Your task to perform on an android device: turn on showing notifications on the lock screen Image 0: 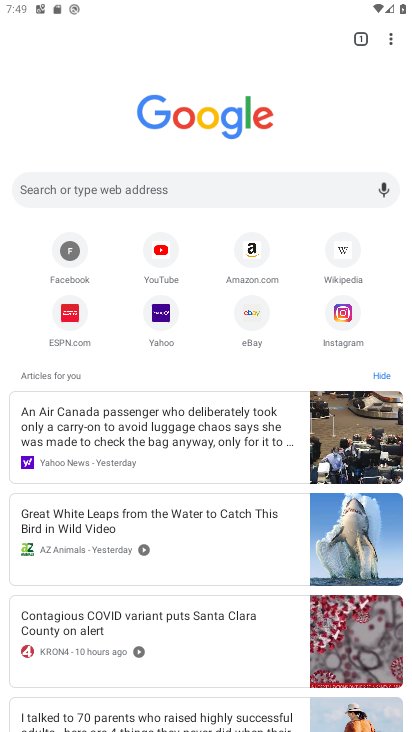
Step 0: press home button
Your task to perform on an android device: turn on showing notifications on the lock screen Image 1: 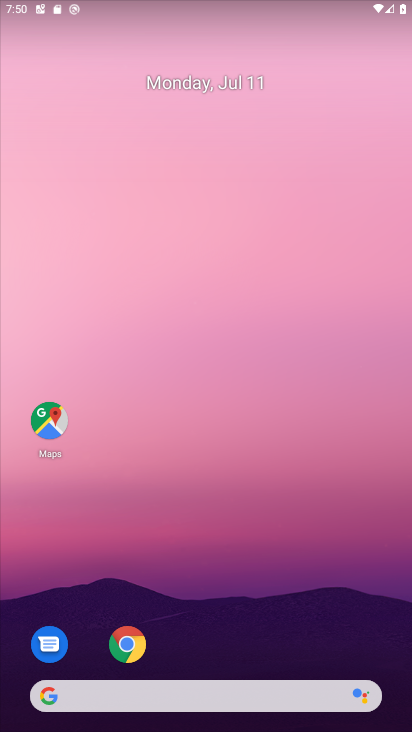
Step 1: drag from (292, 593) to (335, 101)
Your task to perform on an android device: turn on showing notifications on the lock screen Image 2: 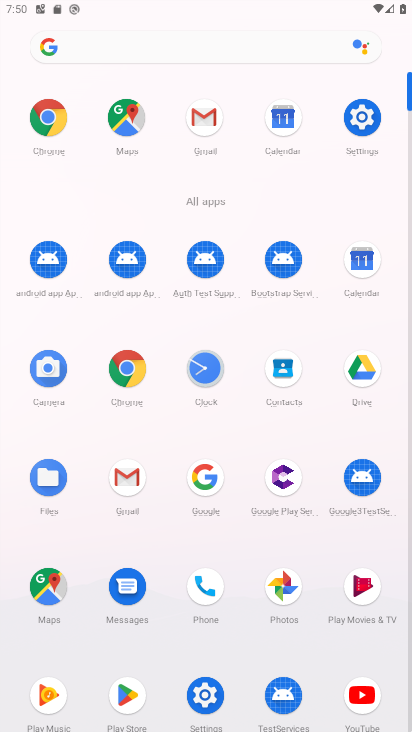
Step 2: click (364, 136)
Your task to perform on an android device: turn on showing notifications on the lock screen Image 3: 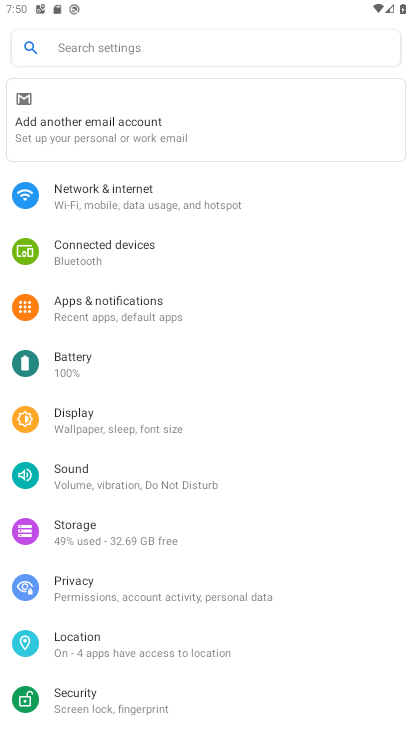
Step 3: click (123, 185)
Your task to perform on an android device: turn on showing notifications on the lock screen Image 4: 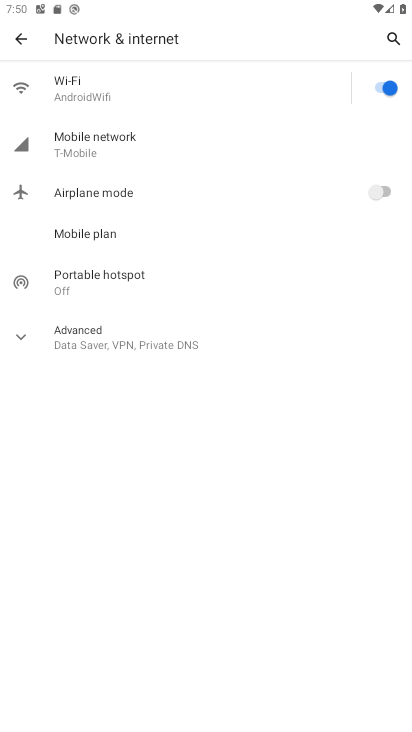
Step 4: click (34, 44)
Your task to perform on an android device: turn on showing notifications on the lock screen Image 5: 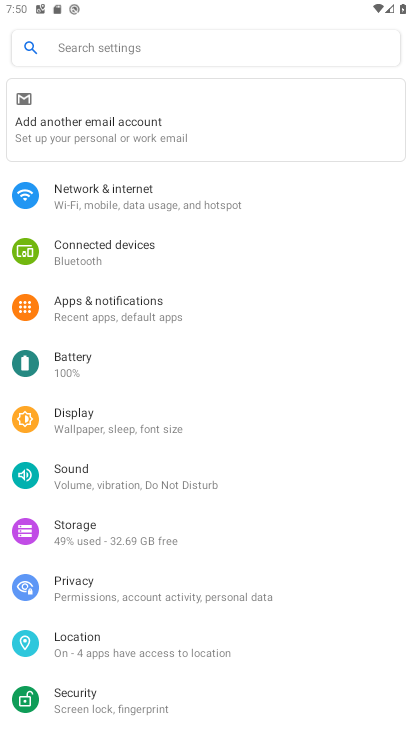
Step 5: click (162, 292)
Your task to perform on an android device: turn on showing notifications on the lock screen Image 6: 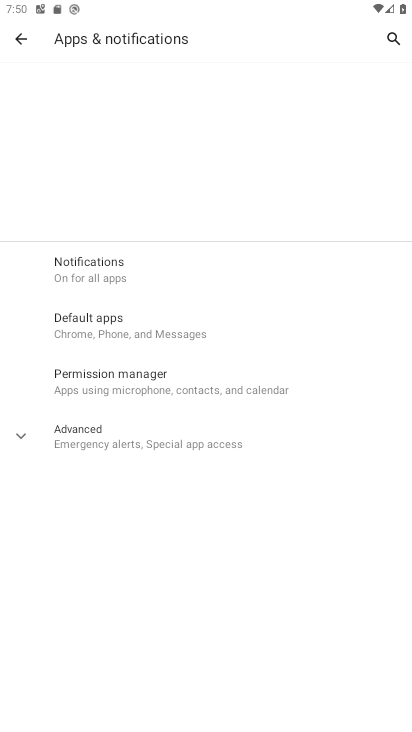
Step 6: click (139, 264)
Your task to perform on an android device: turn on showing notifications on the lock screen Image 7: 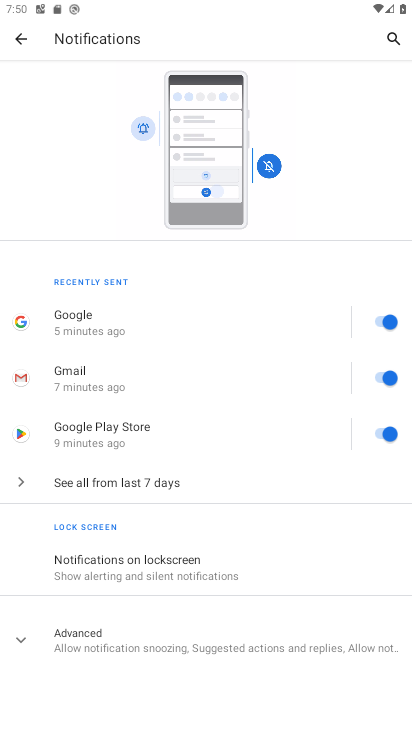
Step 7: click (168, 563)
Your task to perform on an android device: turn on showing notifications on the lock screen Image 8: 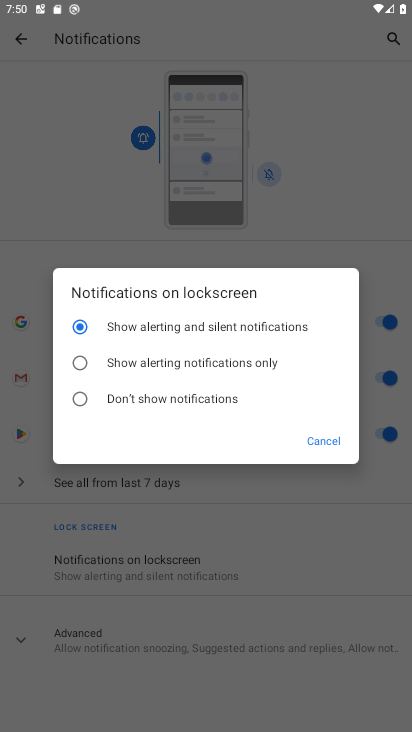
Step 8: task complete